Your task to perform on an android device: check battery use Image 0: 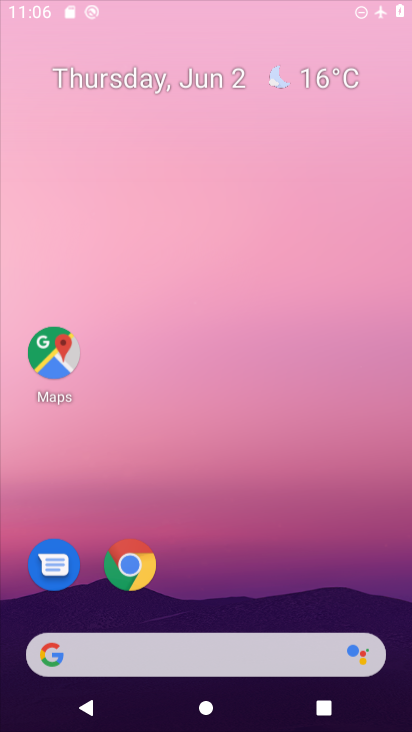
Step 0: click (299, 162)
Your task to perform on an android device: check battery use Image 1: 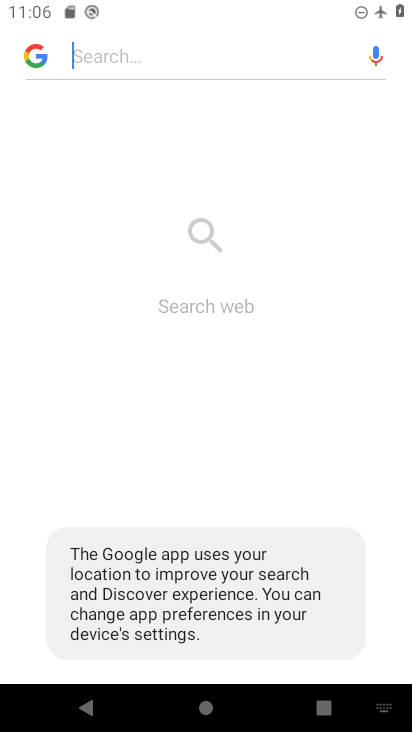
Step 1: press home button
Your task to perform on an android device: check battery use Image 2: 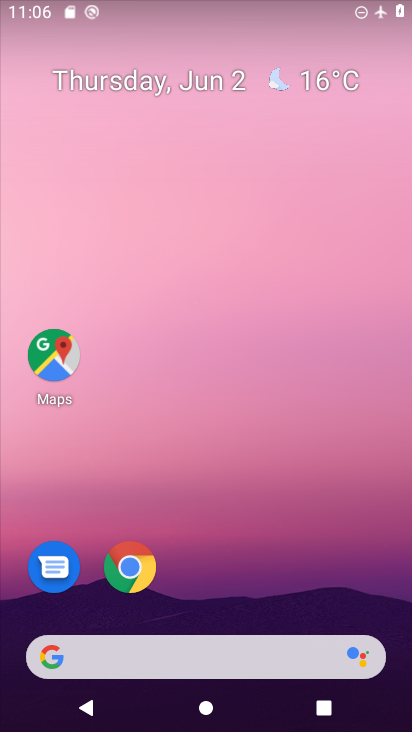
Step 2: drag from (304, 553) to (258, 147)
Your task to perform on an android device: check battery use Image 3: 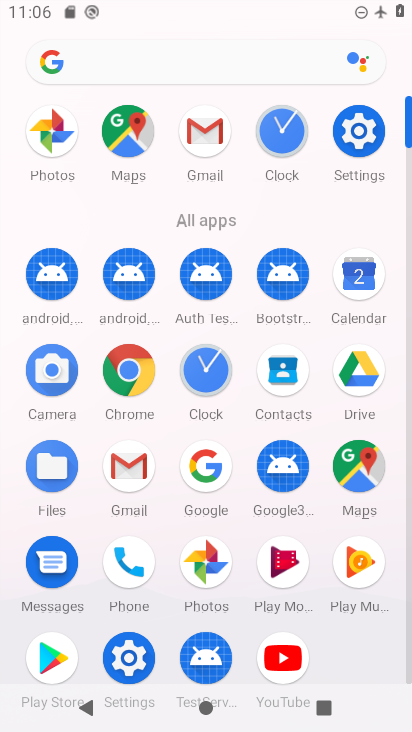
Step 3: click (371, 128)
Your task to perform on an android device: check battery use Image 4: 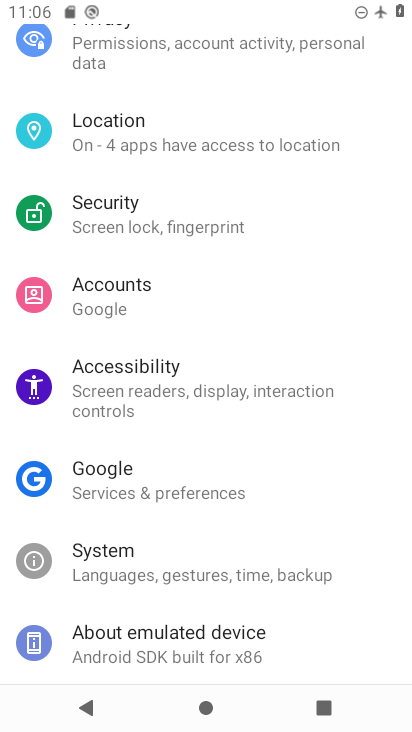
Step 4: drag from (205, 242) to (187, 565)
Your task to perform on an android device: check battery use Image 5: 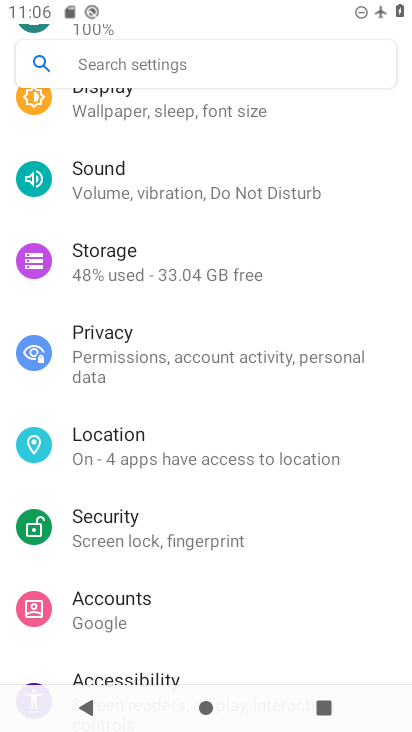
Step 5: drag from (157, 214) to (168, 483)
Your task to perform on an android device: check battery use Image 6: 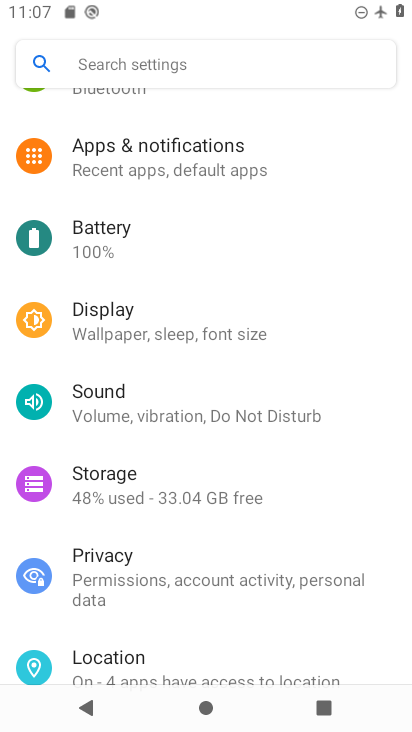
Step 6: click (129, 232)
Your task to perform on an android device: check battery use Image 7: 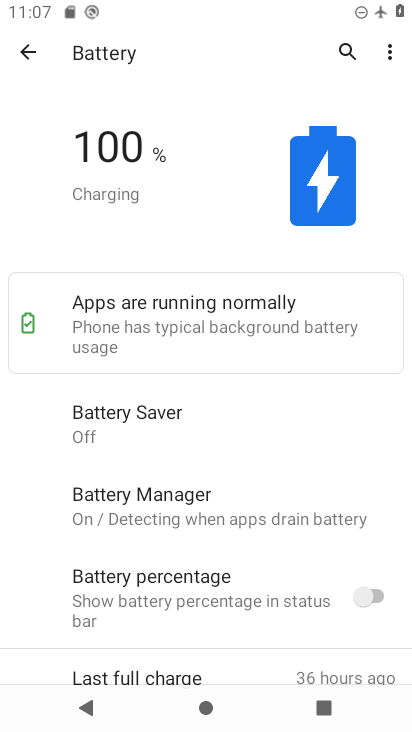
Step 7: click (393, 48)
Your task to perform on an android device: check battery use Image 8: 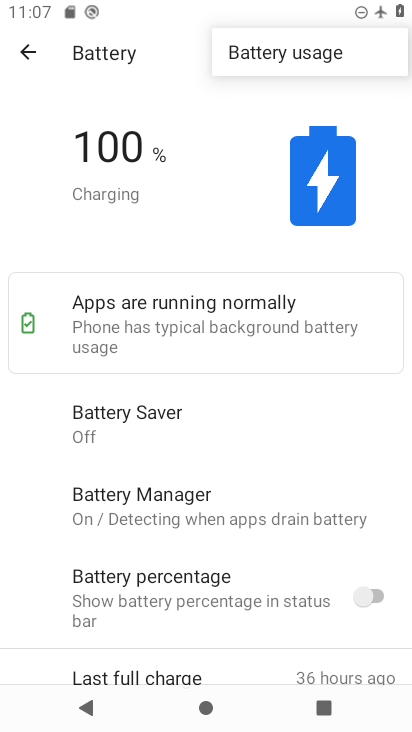
Step 8: click (279, 62)
Your task to perform on an android device: check battery use Image 9: 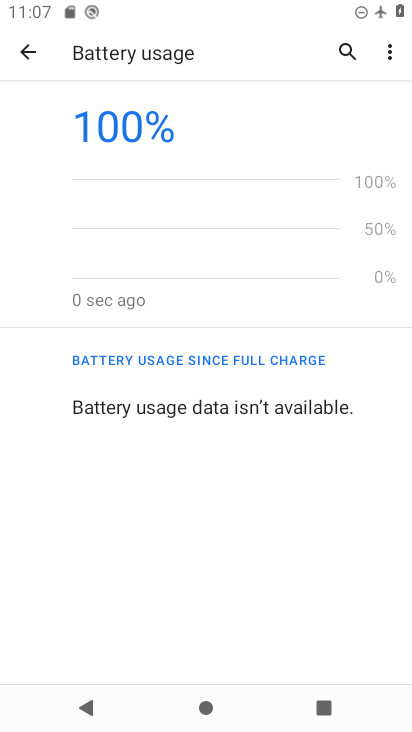
Step 9: task complete